Your task to perform on an android device: toggle improve location accuracy Image 0: 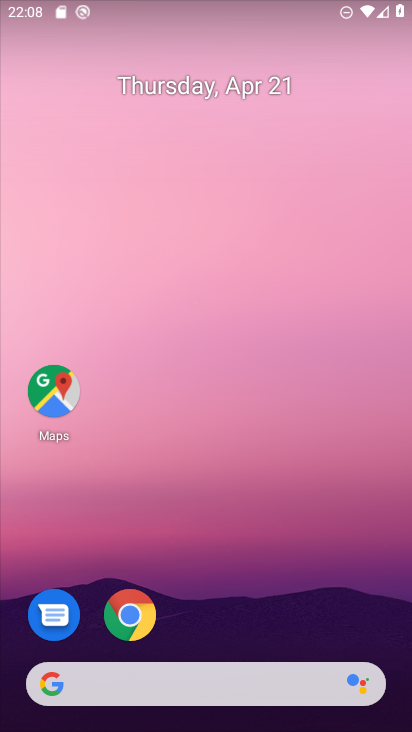
Step 0: drag from (229, 634) to (224, 345)
Your task to perform on an android device: toggle improve location accuracy Image 1: 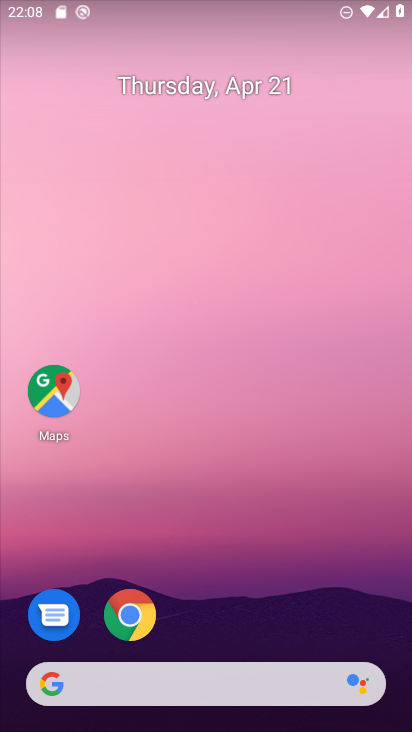
Step 1: drag from (193, 633) to (218, 104)
Your task to perform on an android device: toggle improve location accuracy Image 2: 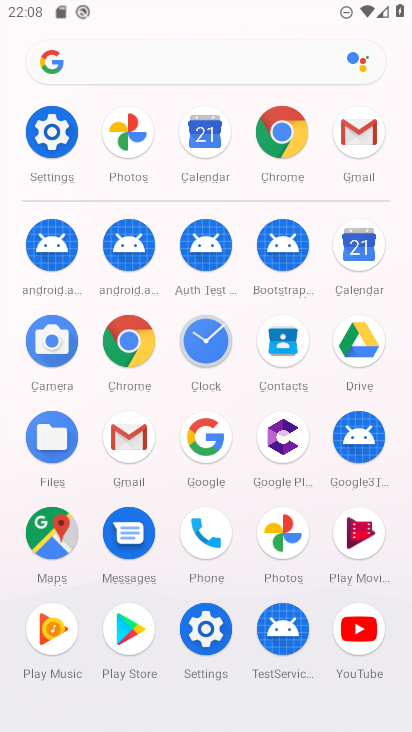
Step 2: click (200, 633)
Your task to perform on an android device: toggle improve location accuracy Image 3: 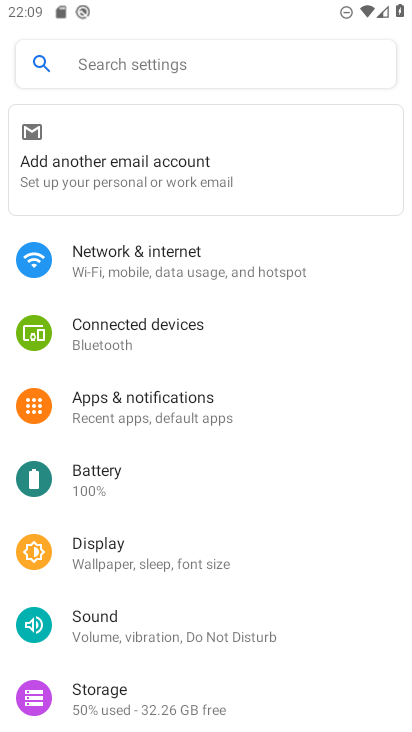
Step 3: drag from (149, 621) to (267, 211)
Your task to perform on an android device: toggle improve location accuracy Image 4: 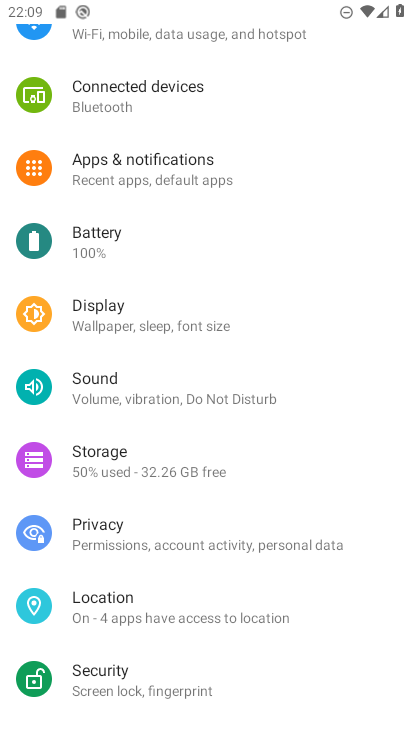
Step 4: drag from (186, 576) to (230, 298)
Your task to perform on an android device: toggle improve location accuracy Image 5: 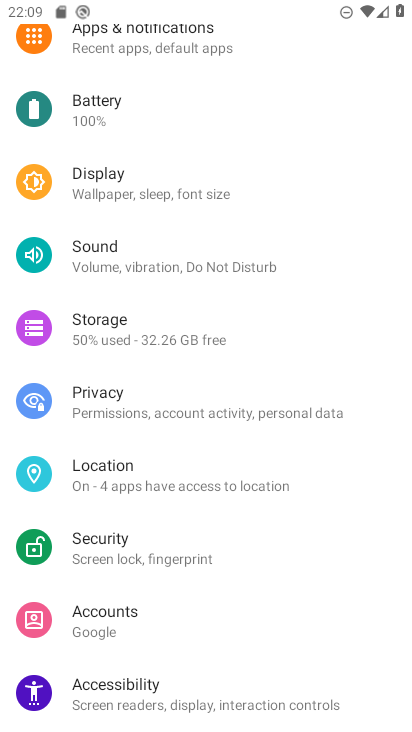
Step 5: drag from (177, 603) to (229, 184)
Your task to perform on an android device: toggle improve location accuracy Image 6: 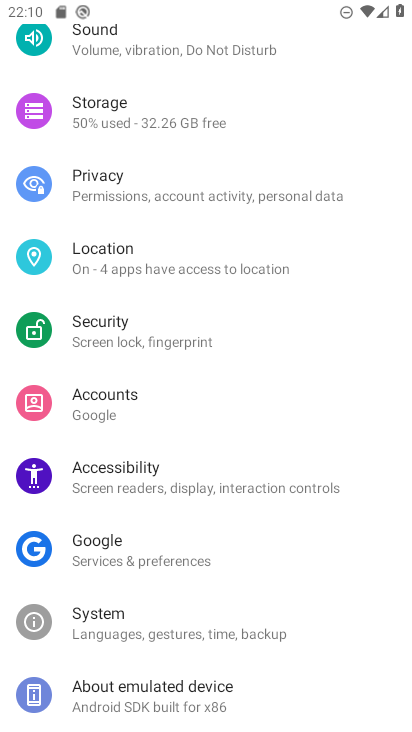
Step 6: click (152, 251)
Your task to perform on an android device: toggle improve location accuracy Image 7: 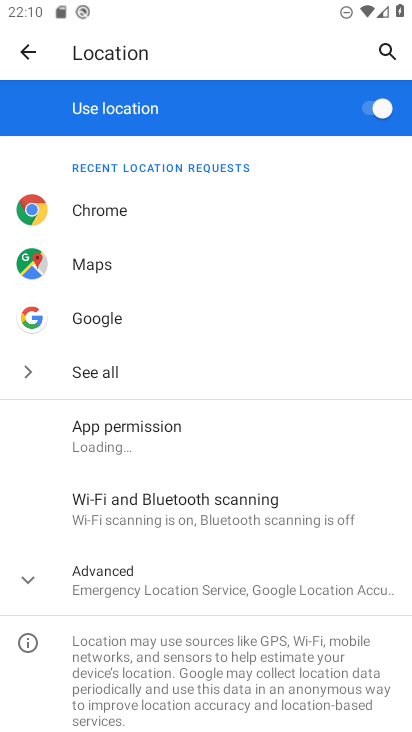
Step 7: drag from (264, 647) to (219, 269)
Your task to perform on an android device: toggle improve location accuracy Image 8: 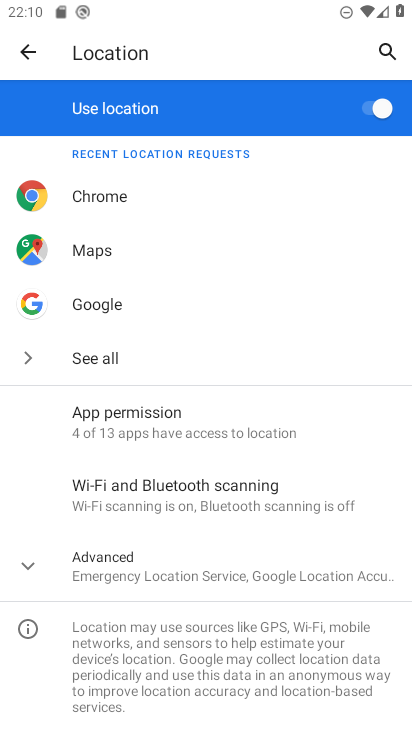
Step 8: drag from (229, 518) to (245, 290)
Your task to perform on an android device: toggle improve location accuracy Image 9: 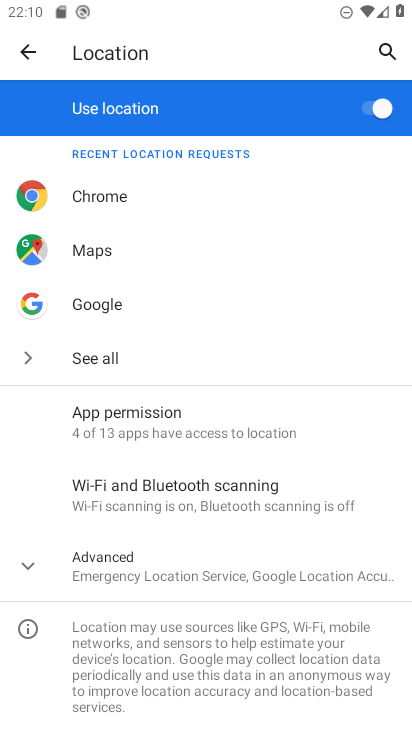
Step 9: drag from (275, 584) to (273, 347)
Your task to perform on an android device: toggle improve location accuracy Image 10: 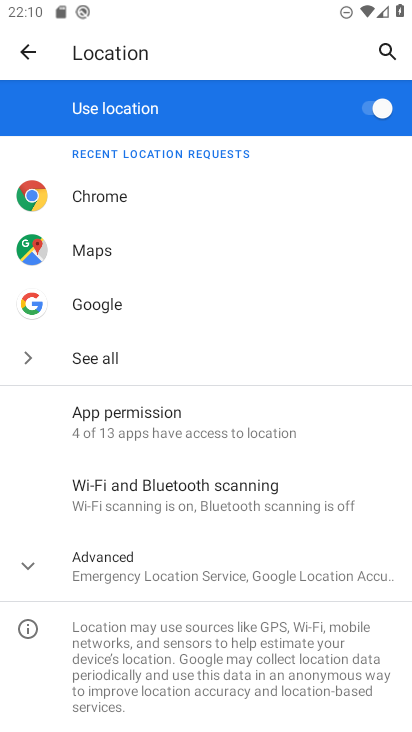
Step 10: drag from (217, 699) to (264, 419)
Your task to perform on an android device: toggle improve location accuracy Image 11: 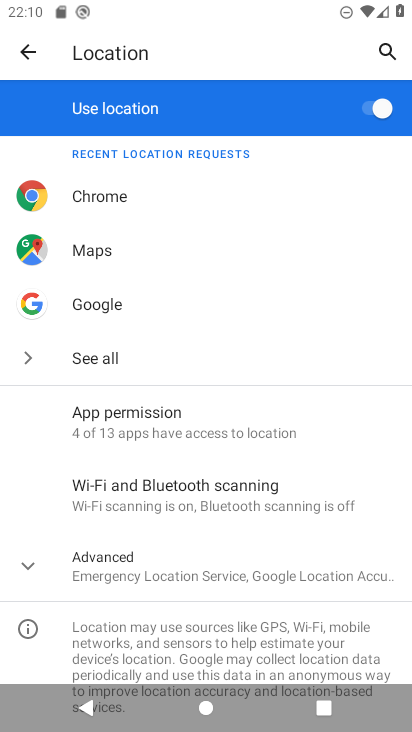
Step 11: drag from (199, 559) to (214, 437)
Your task to perform on an android device: toggle improve location accuracy Image 12: 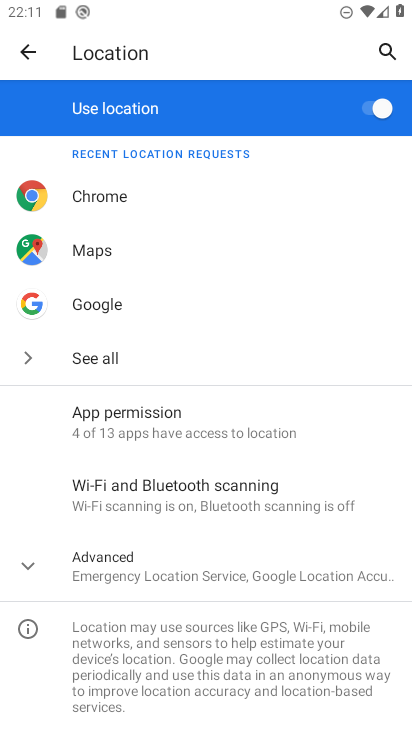
Step 12: click (150, 561)
Your task to perform on an android device: toggle improve location accuracy Image 13: 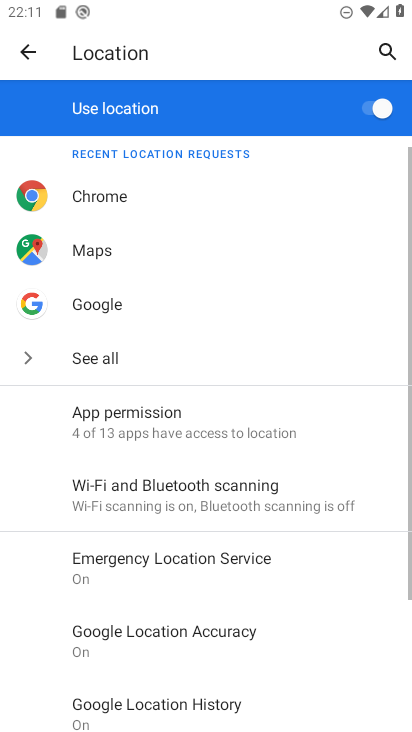
Step 13: drag from (227, 660) to (273, 338)
Your task to perform on an android device: toggle improve location accuracy Image 14: 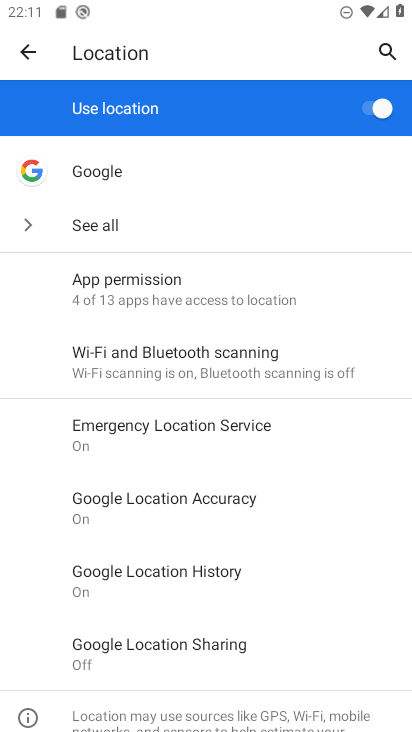
Step 14: click (189, 507)
Your task to perform on an android device: toggle improve location accuracy Image 15: 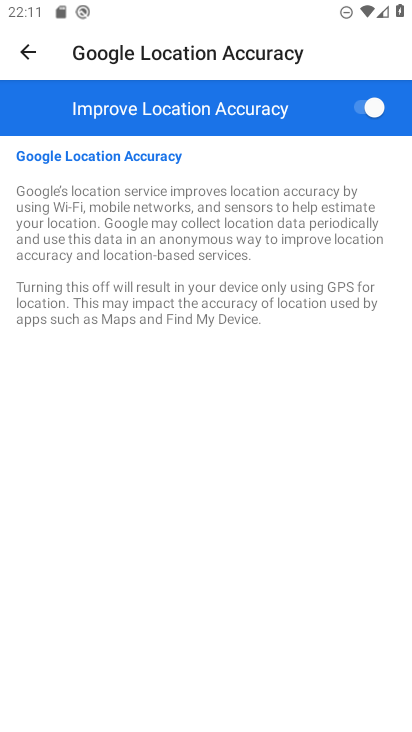
Step 15: task complete